Your task to perform on an android device: turn off priority inbox in the gmail app Image 0: 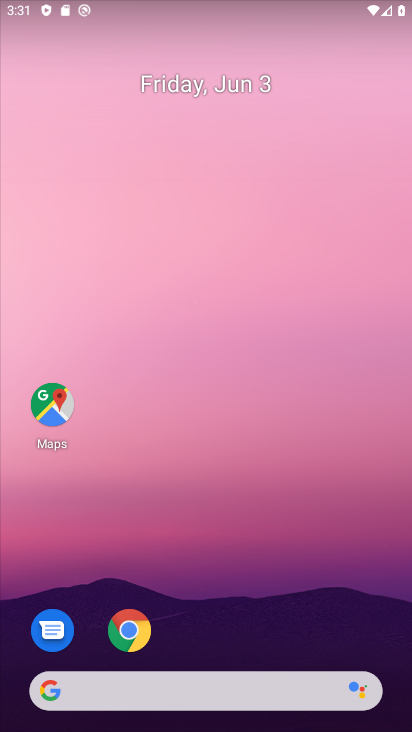
Step 0: drag from (271, 522) to (301, 62)
Your task to perform on an android device: turn off priority inbox in the gmail app Image 1: 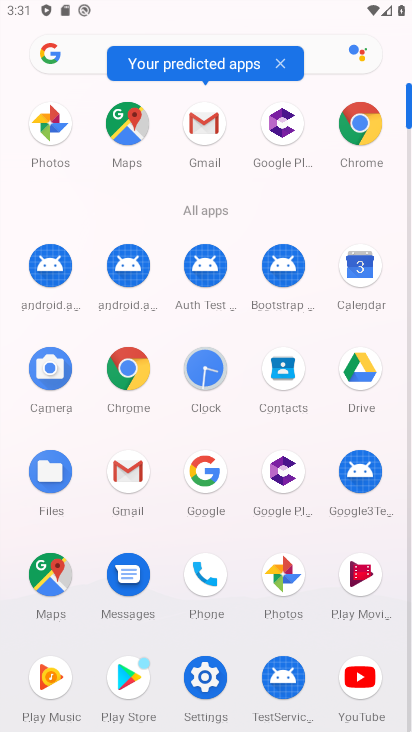
Step 1: click (115, 466)
Your task to perform on an android device: turn off priority inbox in the gmail app Image 2: 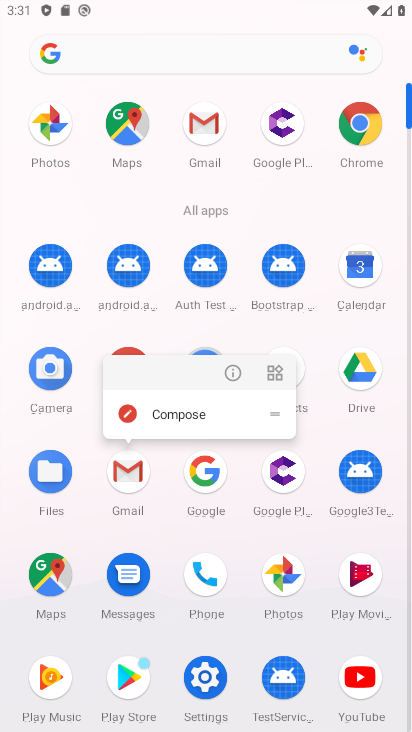
Step 2: click (125, 473)
Your task to perform on an android device: turn off priority inbox in the gmail app Image 3: 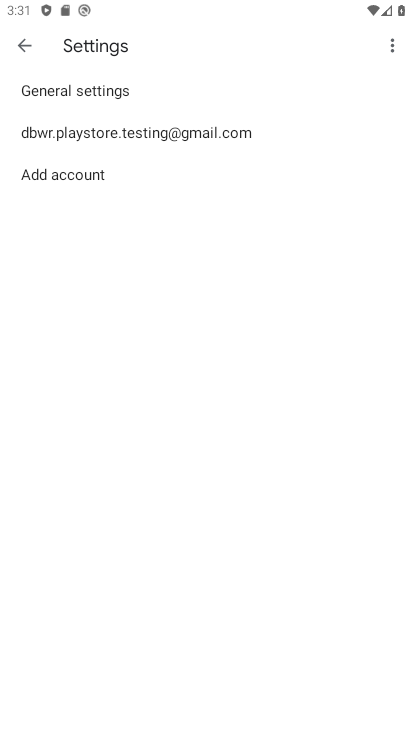
Step 3: click (190, 132)
Your task to perform on an android device: turn off priority inbox in the gmail app Image 4: 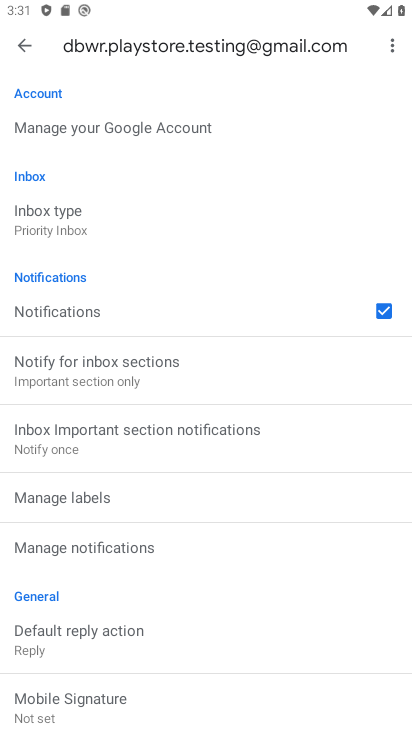
Step 4: click (55, 225)
Your task to perform on an android device: turn off priority inbox in the gmail app Image 5: 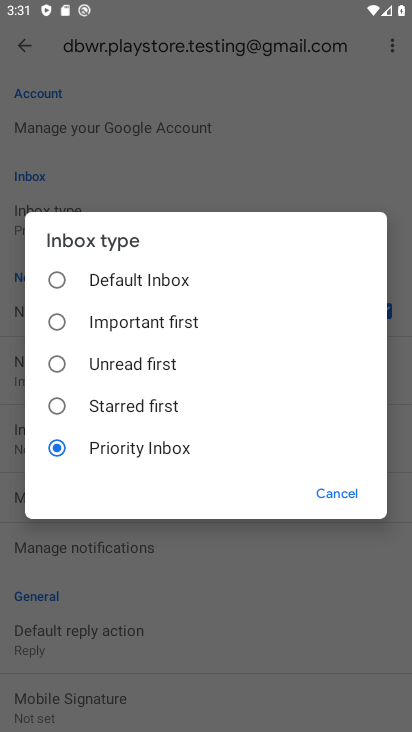
Step 5: click (128, 279)
Your task to perform on an android device: turn off priority inbox in the gmail app Image 6: 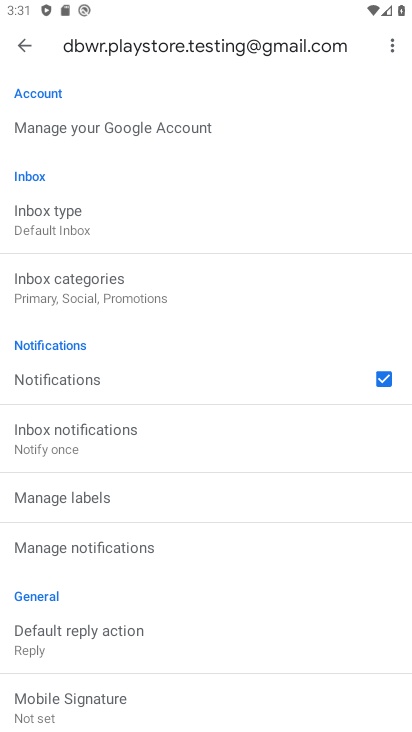
Step 6: task complete